Your task to perform on an android device: turn on wifi Image 0: 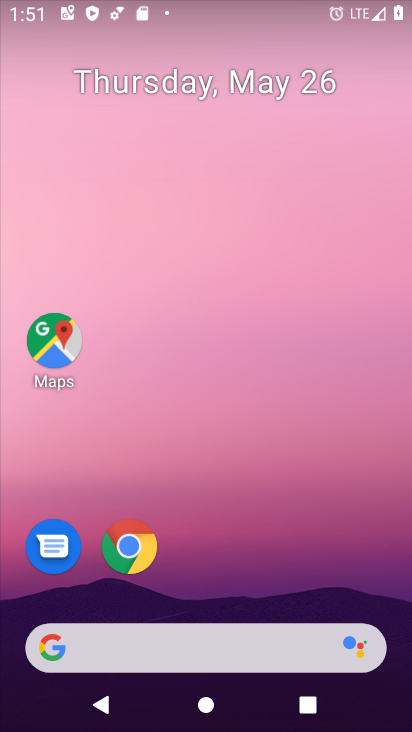
Step 0: drag from (398, 642) to (261, 52)
Your task to perform on an android device: turn on wifi Image 1: 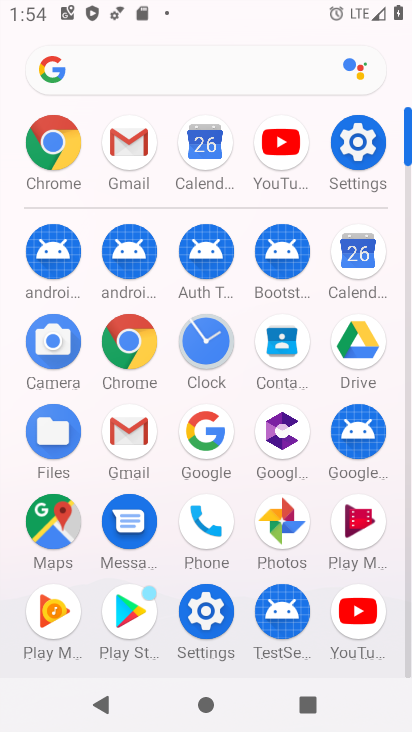
Step 1: click (357, 155)
Your task to perform on an android device: turn on wifi Image 2: 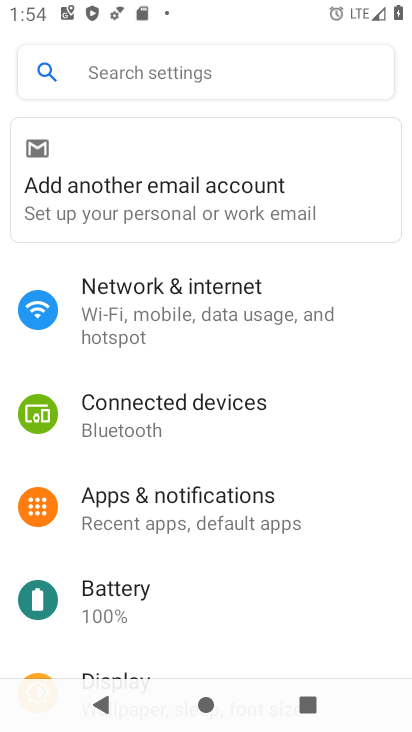
Step 2: click (146, 313)
Your task to perform on an android device: turn on wifi Image 3: 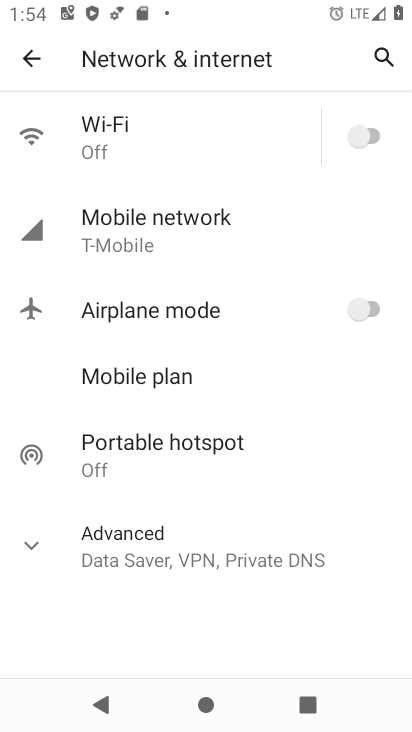
Step 3: click (185, 157)
Your task to perform on an android device: turn on wifi Image 4: 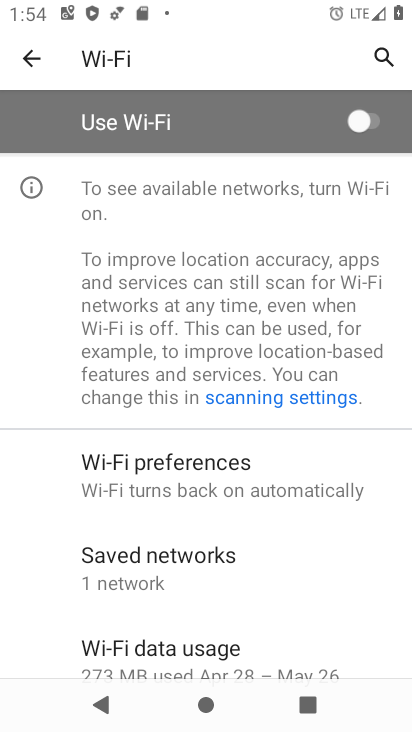
Step 4: click (352, 120)
Your task to perform on an android device: turn on wifi Image 5: 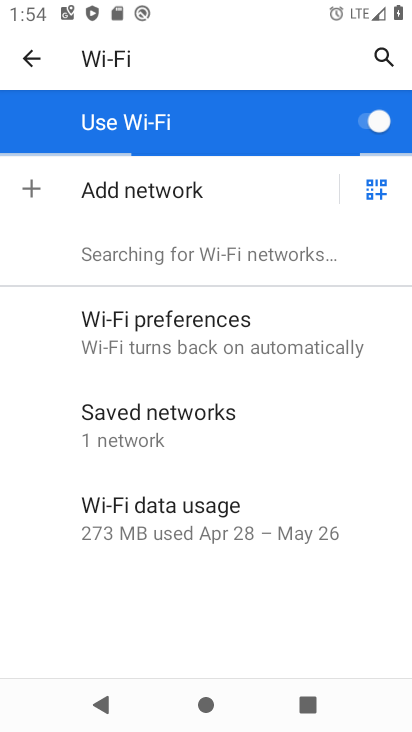
Step 5: task complete